Your task to perform on an android device: Open the calendar app, open the side menu, and click the "Day" option Image 0: 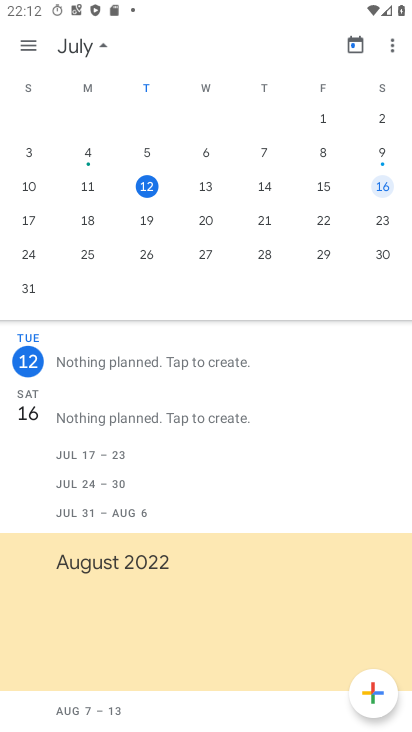
Step 0: click (25, 46)
Your task to perform on an android device: Open the calendar app, open the side menu, and click the "Day" option Image 1: 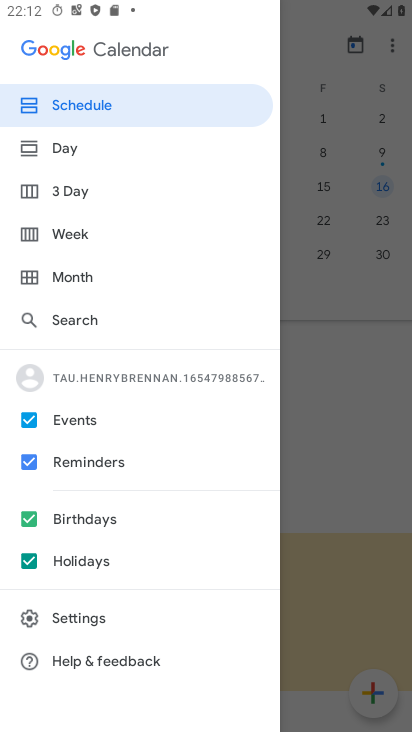
Step 1: click (78, 143)
Your task to perform on an android device: Open the calendar app, open the side menu, and click the "Day" option Image 2: 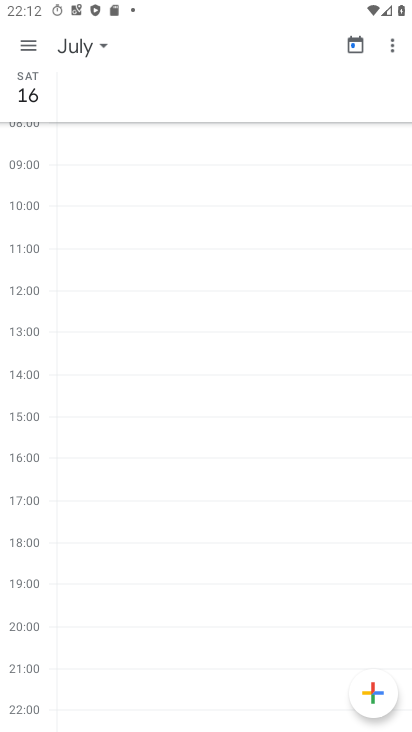
Step 2: task complete